Your task to perform on an android device: What's the weather today? Image 0: 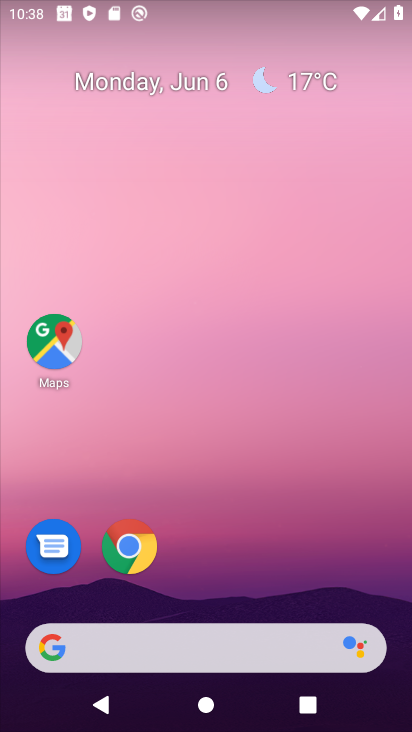
Step 0: click (300, 79)
Your task to perform on an android device: What's the weather today? Image 1: 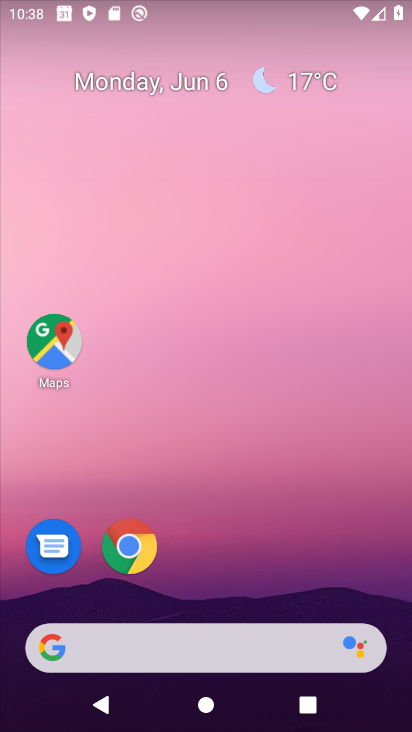
Step 1: click (300, 78)
Your task to perform on an android device: What's the weather today? Image 2: 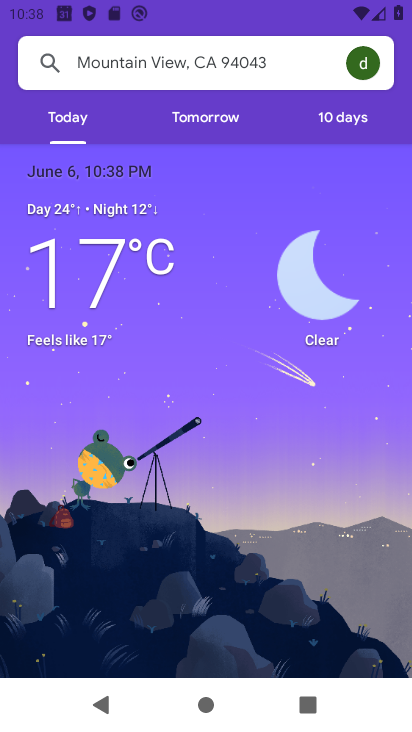
Step 2: task complete